Your task to perform on an android device: Go to display settings Image 0: 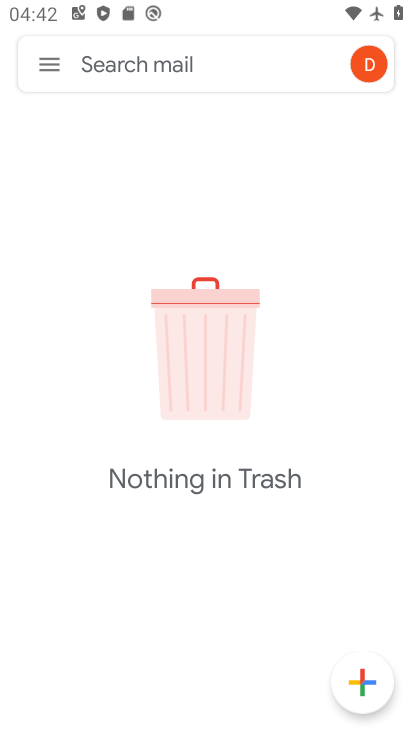
Step 0: click (52, 66)
Your task to perform on an android device: Go to display settings Image 1: 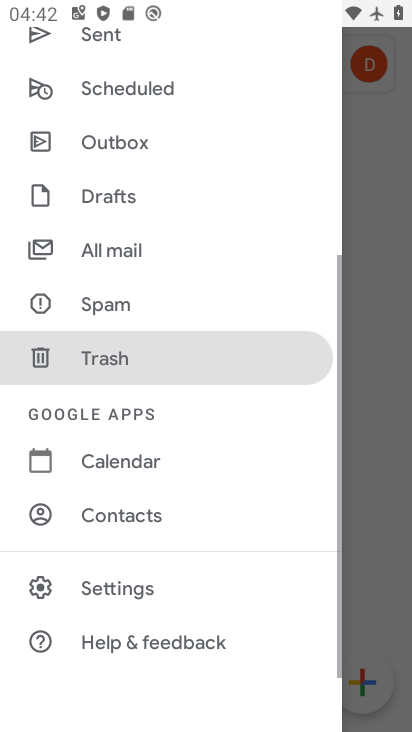
Step 1: drag from (232, 547) to (228, 125)
Your task to perform on an android device: Go to display settings Image 2: 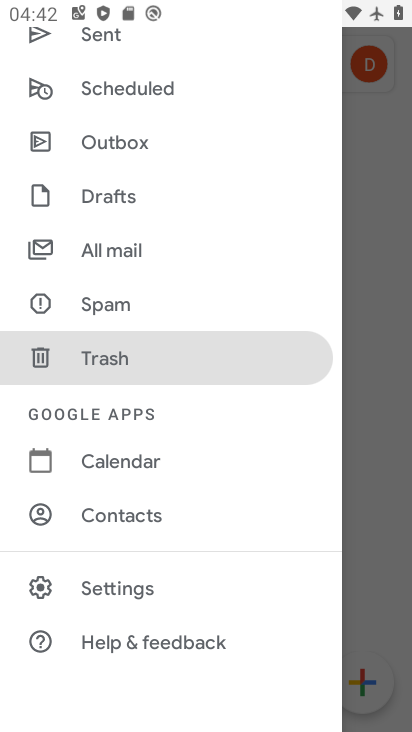
Step 2: click (147, 583)
Your task to perform on an android device: Go to display settings Image 3: 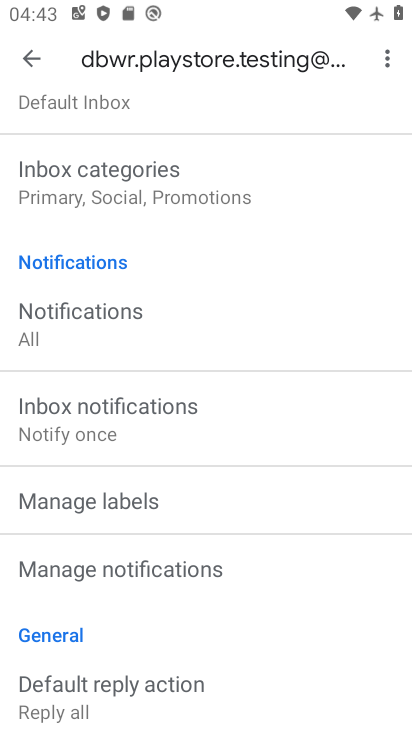
Step 3: press back button
Your task to perform on an android device: Go to display settings Image 4: 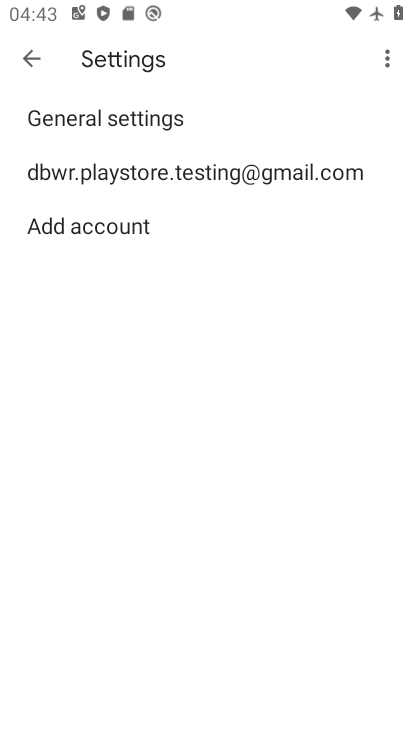
Step 4: press back button
Your task to perform on an android device: Go to display settings Image 5: 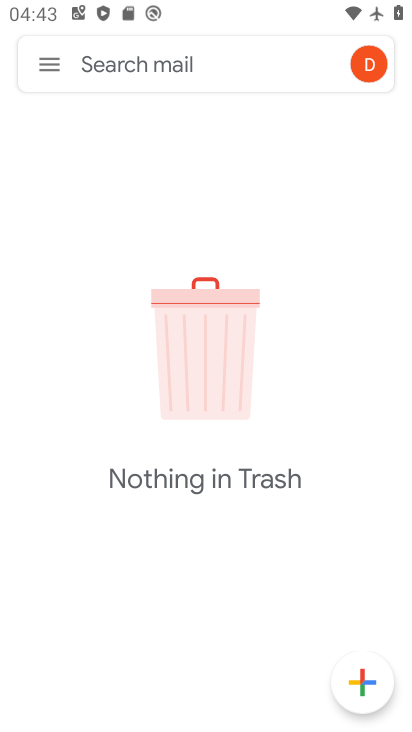
Step 5: press home button
Your task to perform on an android device: Go to display settings Image 6: 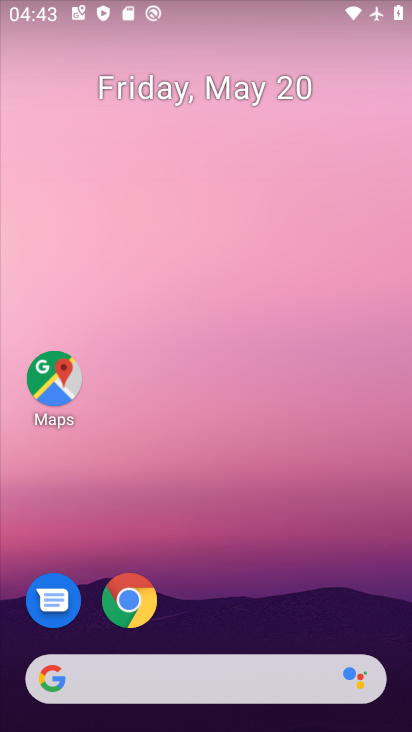
Step 6: drag from (241, 479) to (248, 0)
Your task to perform on an android device: Go to display settings Image 7: 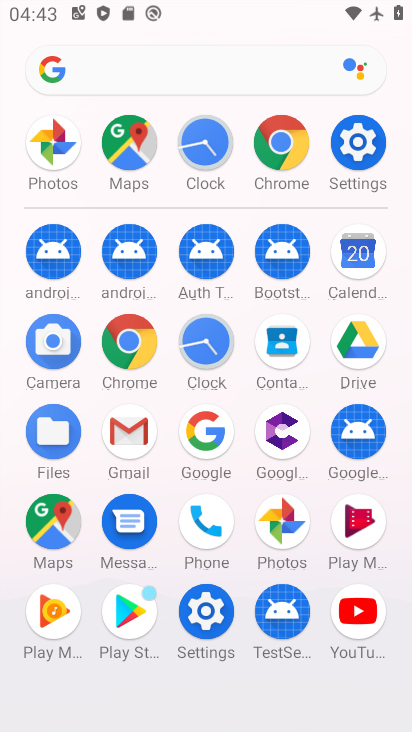
Step 7: click (356, 143)
Your task to perform on an android device: Go to display settings Image 8: 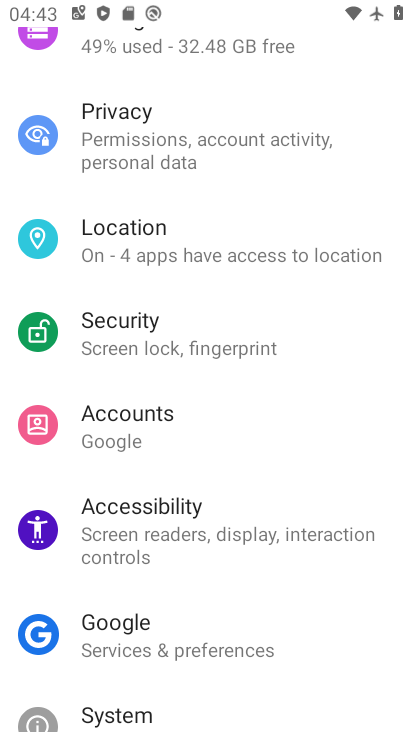
Step 8: drag from (304, 203) to (334, 644)
Your task to perform on an android device: Go to display settings Image 9: 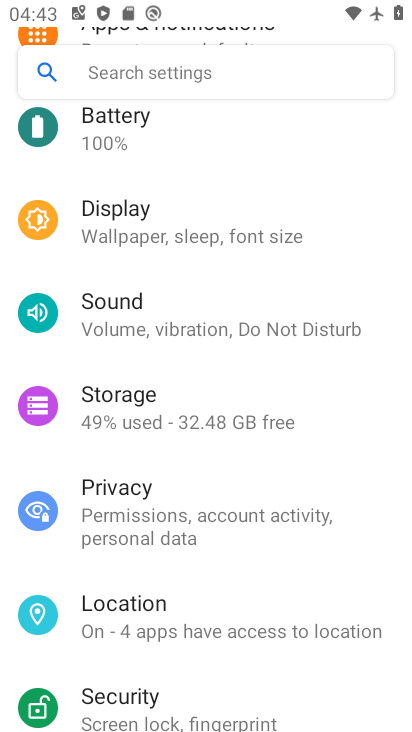
Step 9: click (150, 225)
Your task to perform on an android device: Go to display settings Image 10: 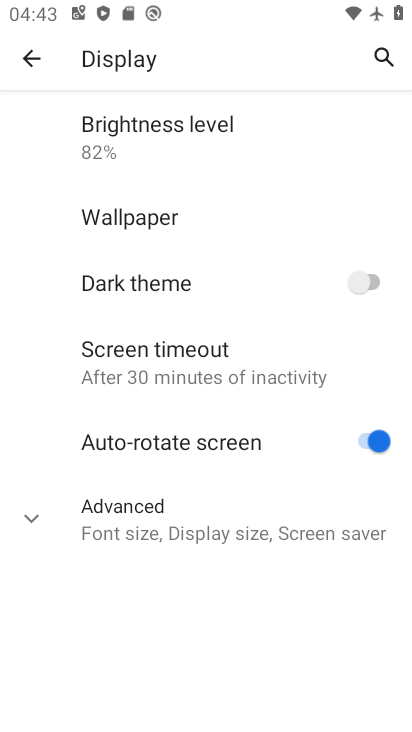
Step 10: click (52, 535)
Your task to perform on an android device: Go to display settings Image 11: 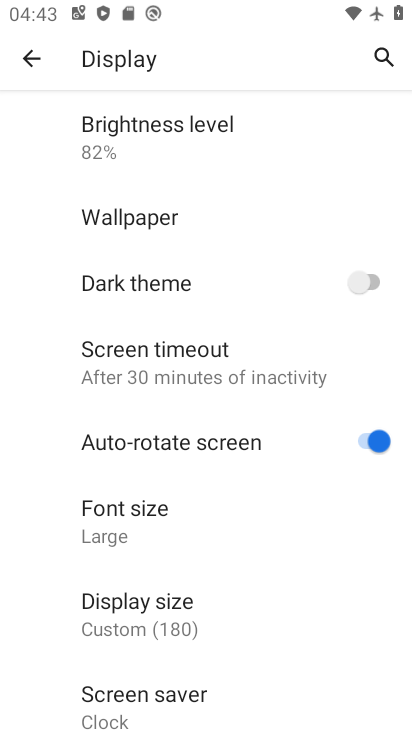
Step 11: task complete